Your task to perform on an android device: Go to Amazon Image 0: 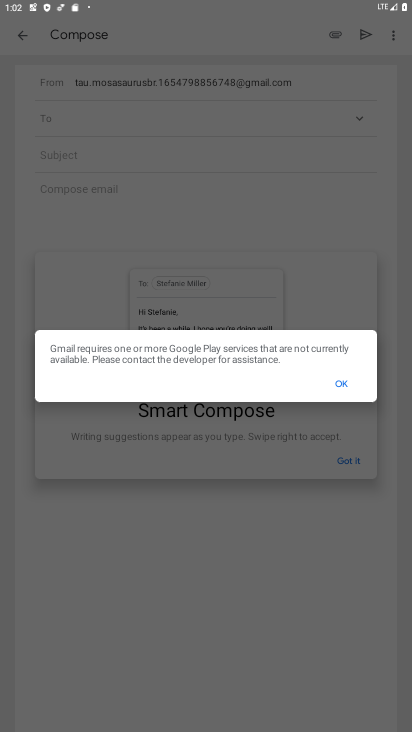
Step 0: press home button
Your task to perform on an android device: Go to Amazon Image 1: 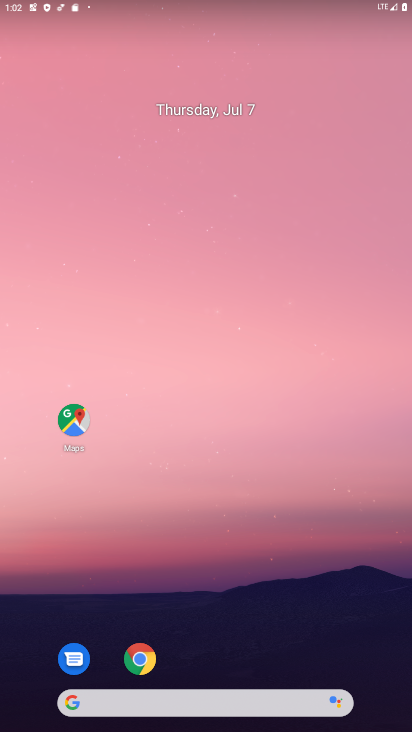
Step 1: click (136, 655)
Your task to perform on an android device: Go to Amazon Image 2: 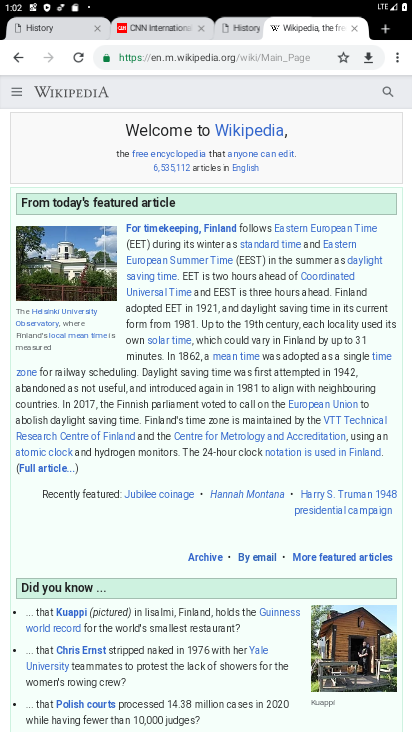
Step 2: click (393, 52)
Your task to perform on an android device: Go to Amazon Image 3: 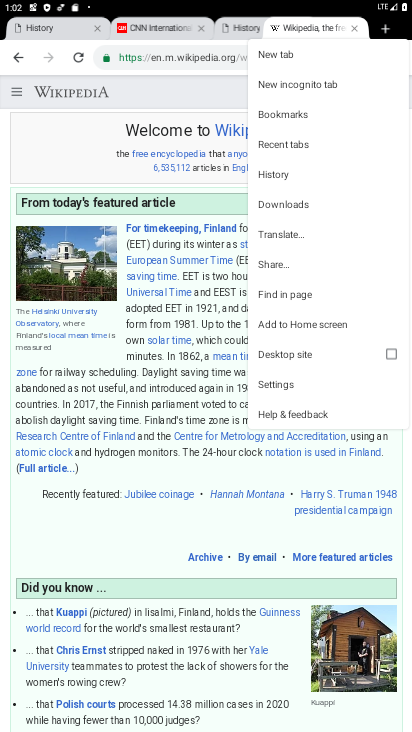
Step 3: click (281, 52)
Your task to perform on an android device: Go to Amazon Image 4: 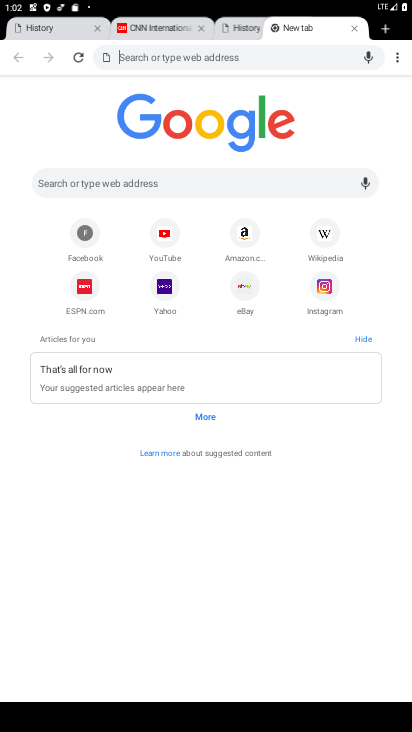
Step 4: click (248, 230)
Your task to perform on an android device: Go to Amazon Image 5: 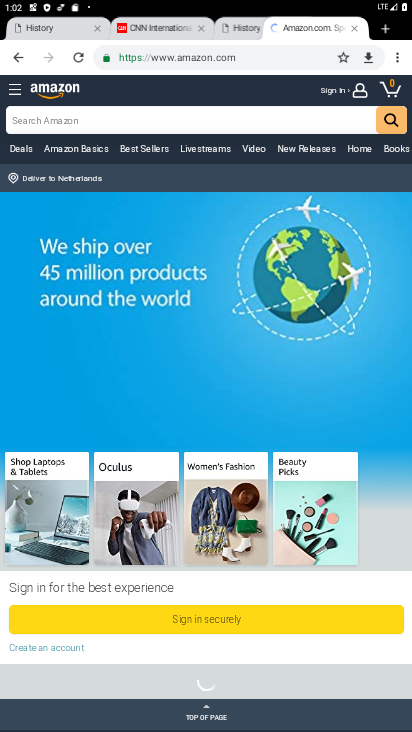
Step 5: task complete